Your task to perform on an android device: Go to Yahoo.com Image 0: 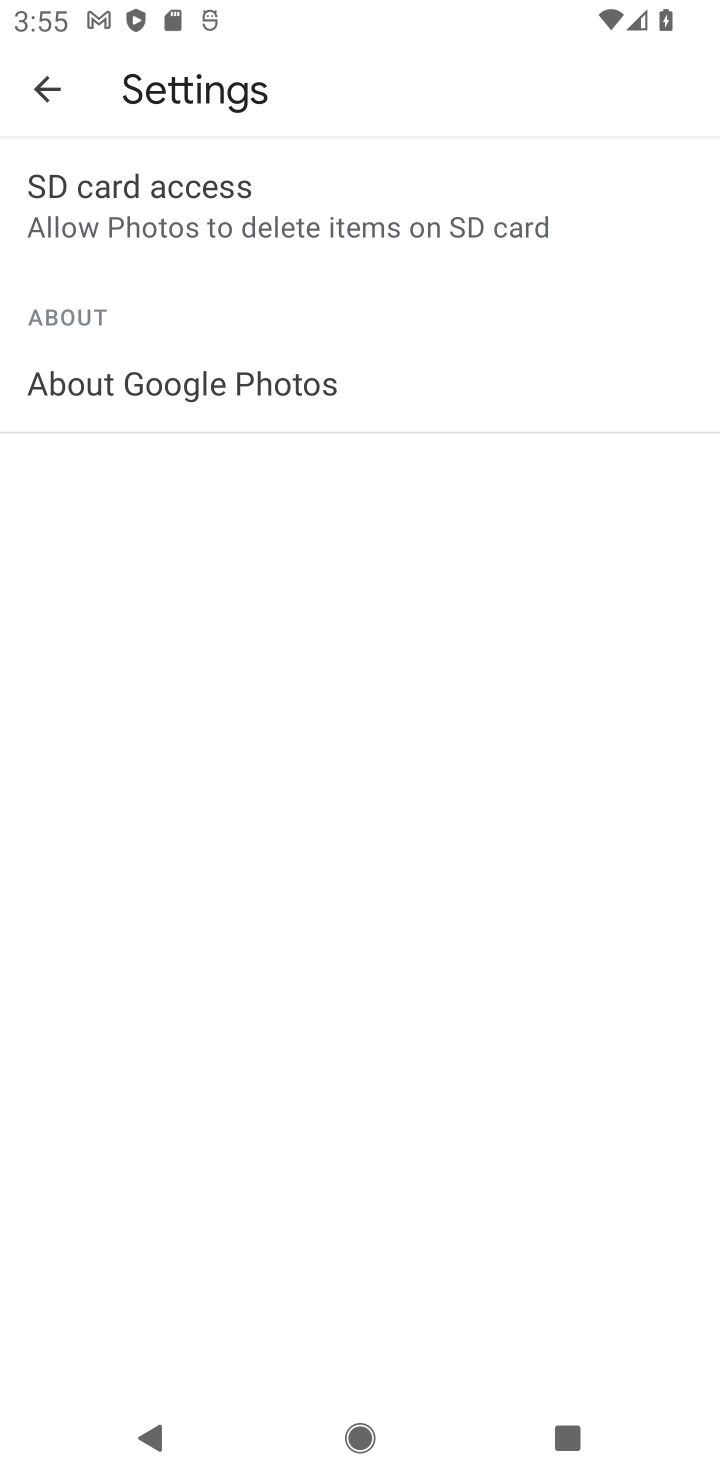
Step 0: press home button
Your task to perform on an android device: Go to Yahoo.com Image 1: 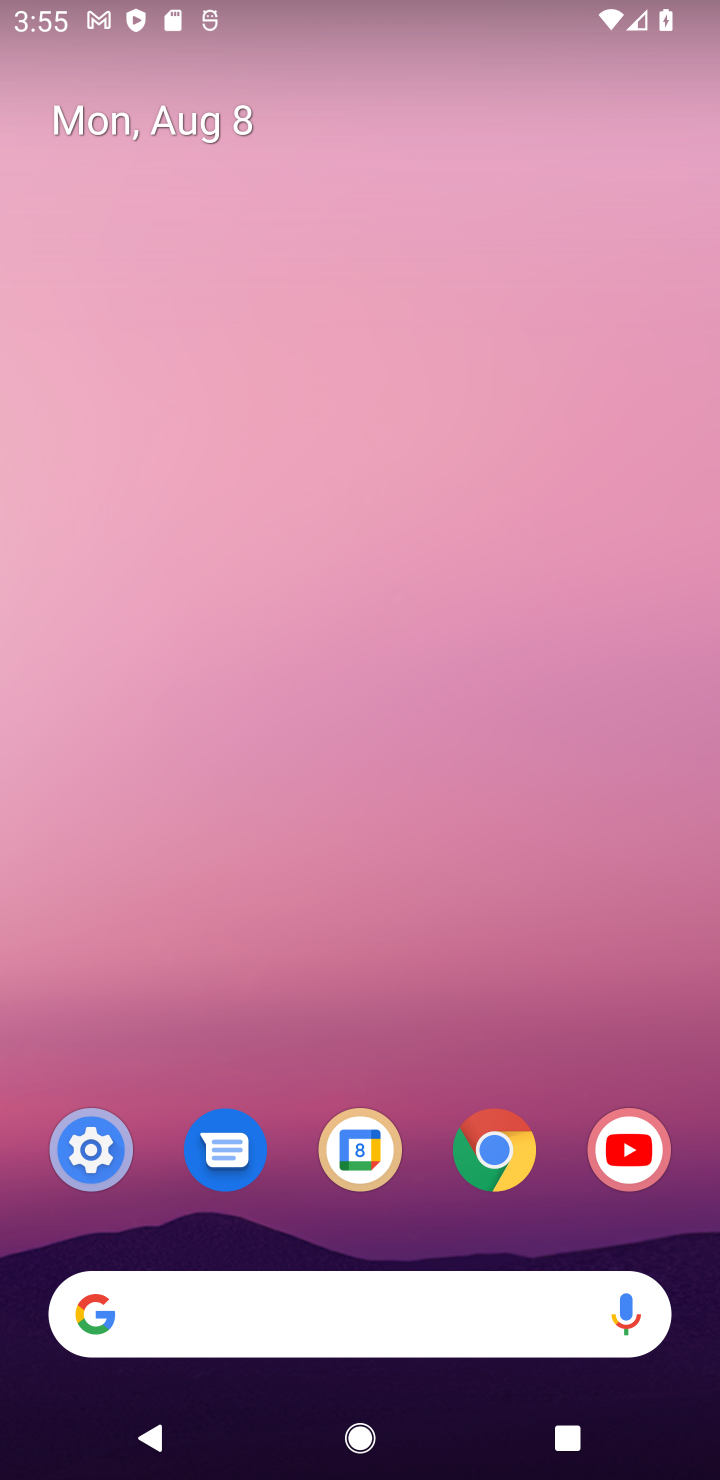
Step 1: drag from (427, 1246) to (368, 123)
Your task to perform on an android device: Go to Yahoo.com Image 2: 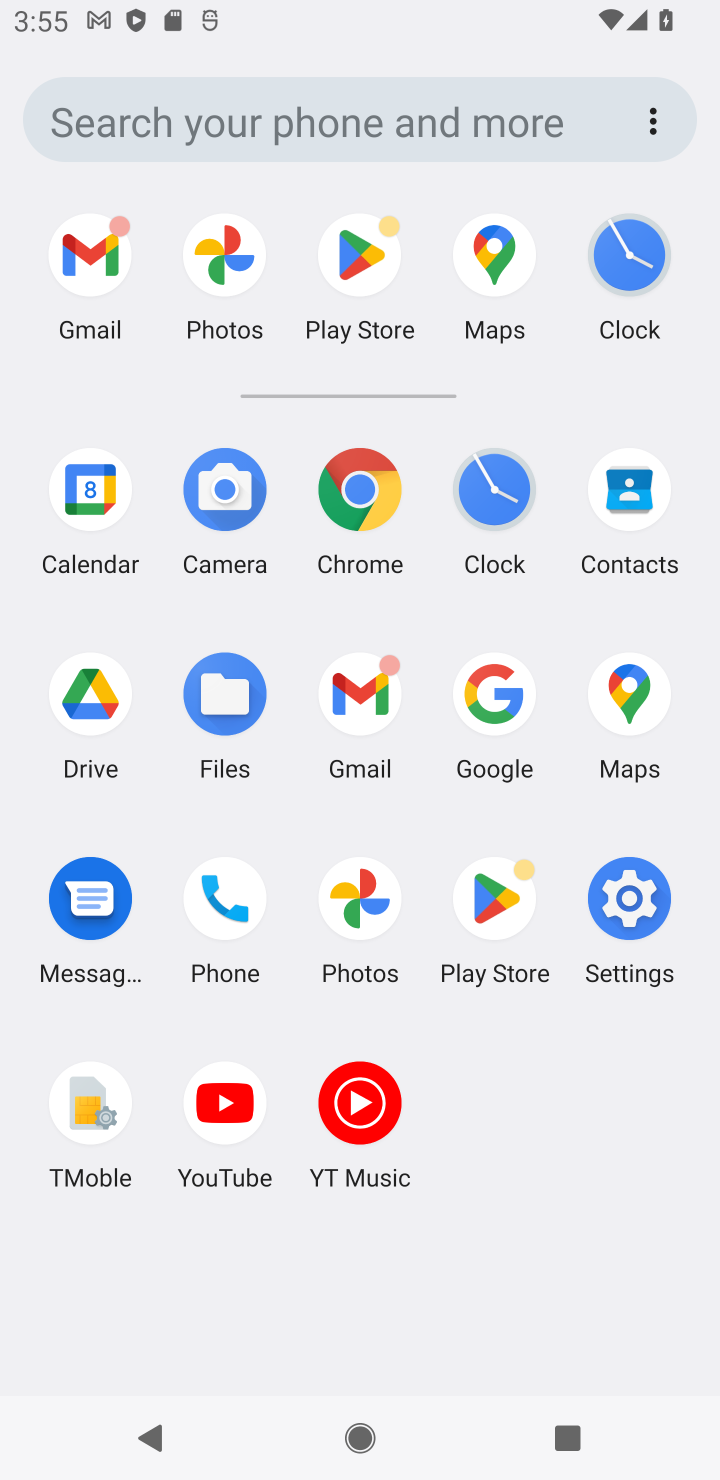
Step 2: click (649, 897)
Your task to perform on an android device: Go to Yahoo.com Image 3: 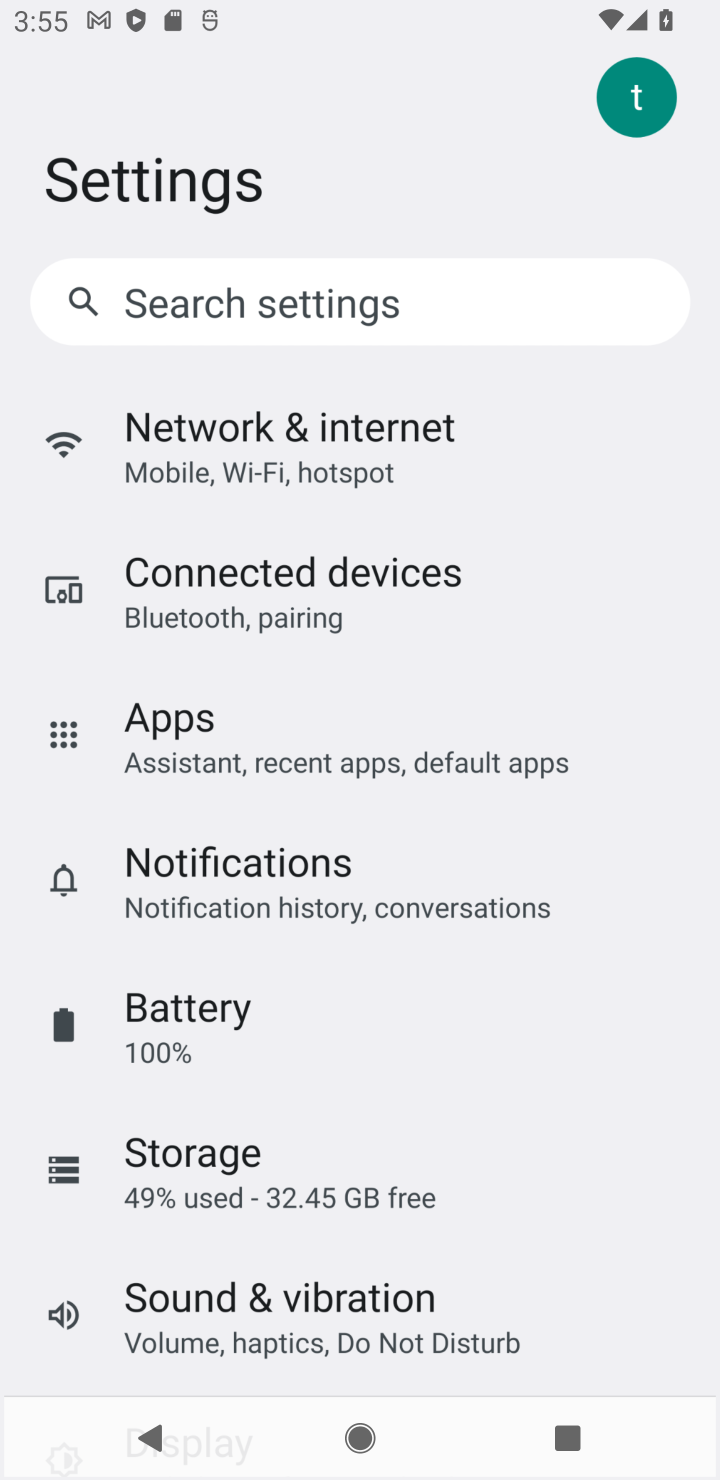
Step 3: task complete